Your task to perform on an android device: What's on my calendar tomorrow? Image 0: 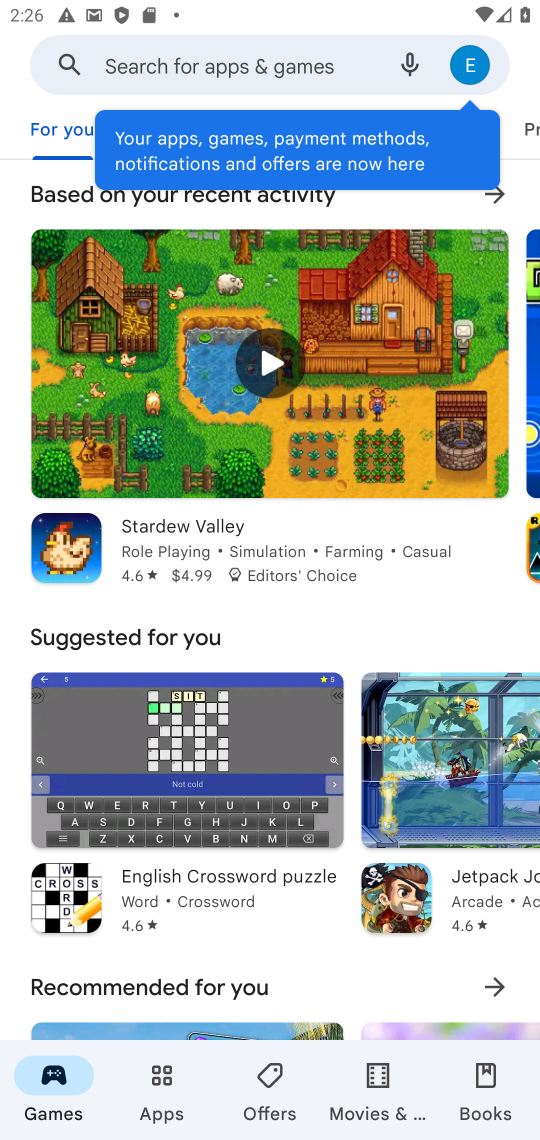
Step 0: press home button
Your task to perform on an android device: What's on my calendar tomorrow? Image 1: 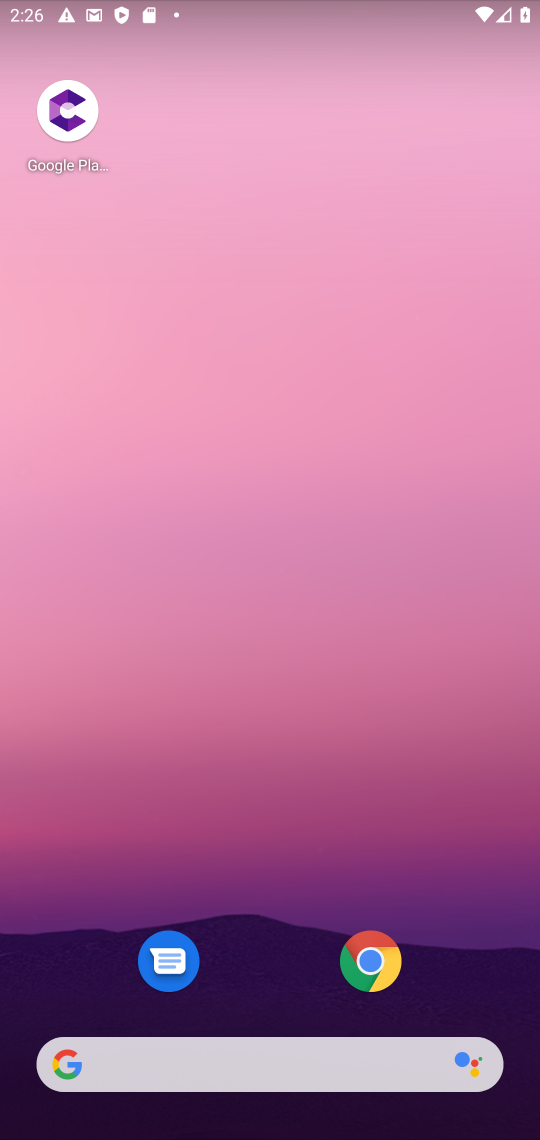
Step 1: drag from (260, 567) to (243, 131)
Your task to perform on an android device: What's on my calendar tomorrow? Image 2: 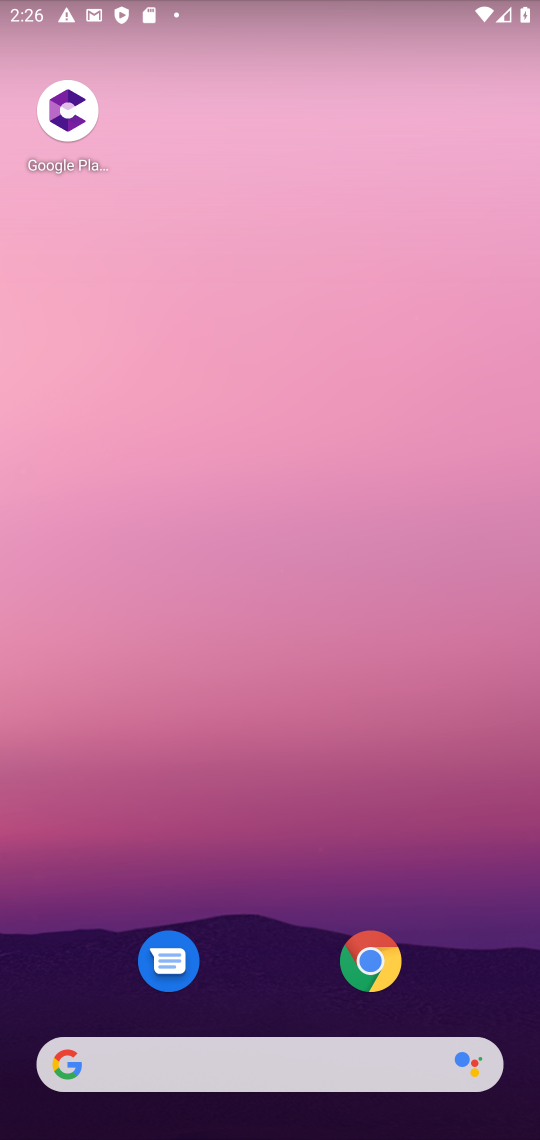
Step 2: drag from (267, 889) to (247, 206)
Your task to perform on an android device: What's on my calendar tomorrow? Image 3: 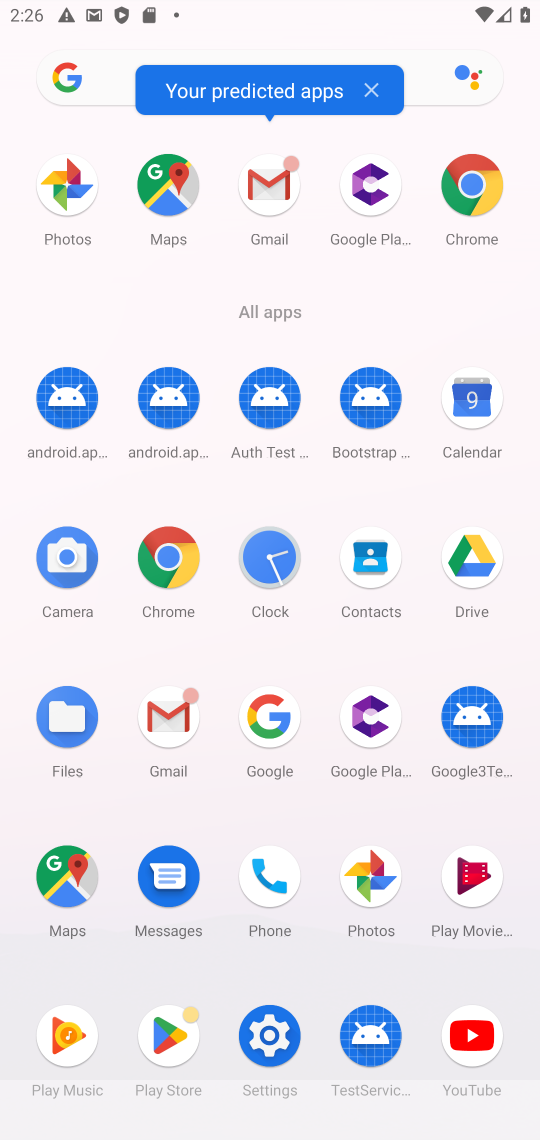
Step 3: click (476, 411)
Your task to perform on an android device: What's on my calendar tomorrow? Image 4: 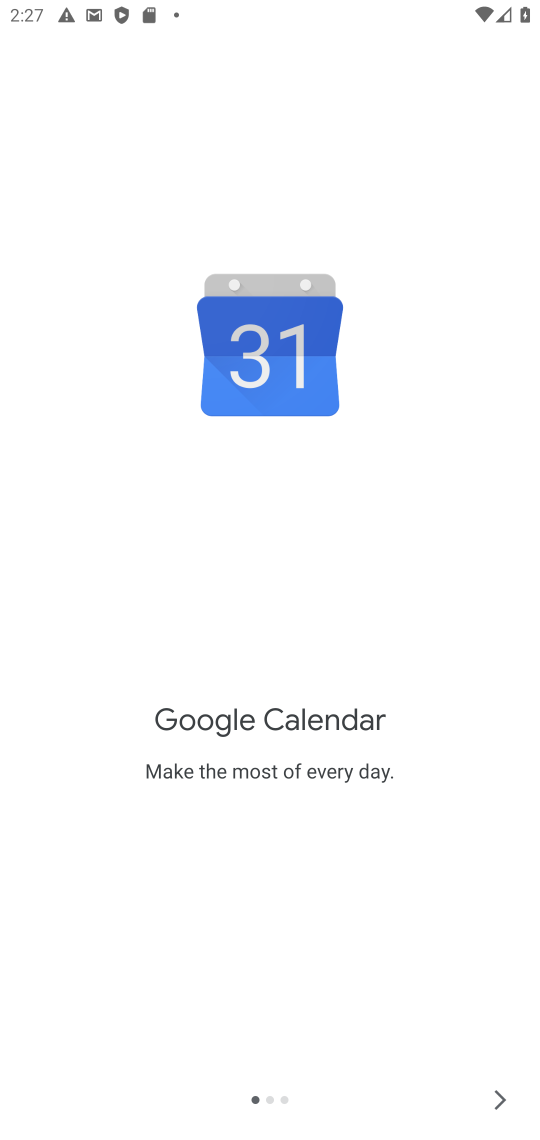
Step 4: click (506, 1108)
Your task to perform on an android device: What's on my calendar tomorrow? Image 5: 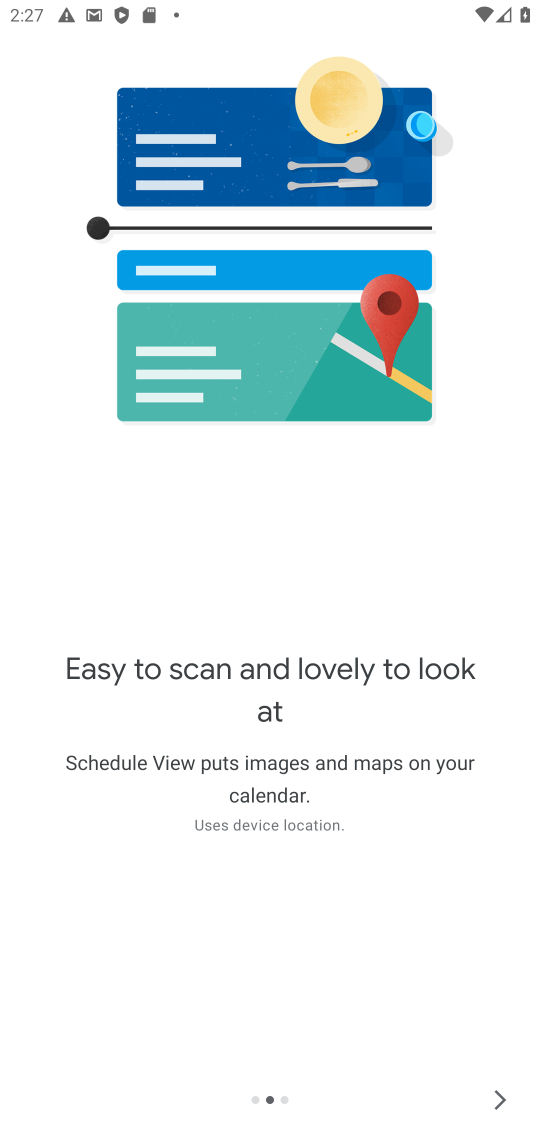
Step 5: click (506, 1108)
Your task to perform on an android device: What's on my calendar tomorrow? Image 6: 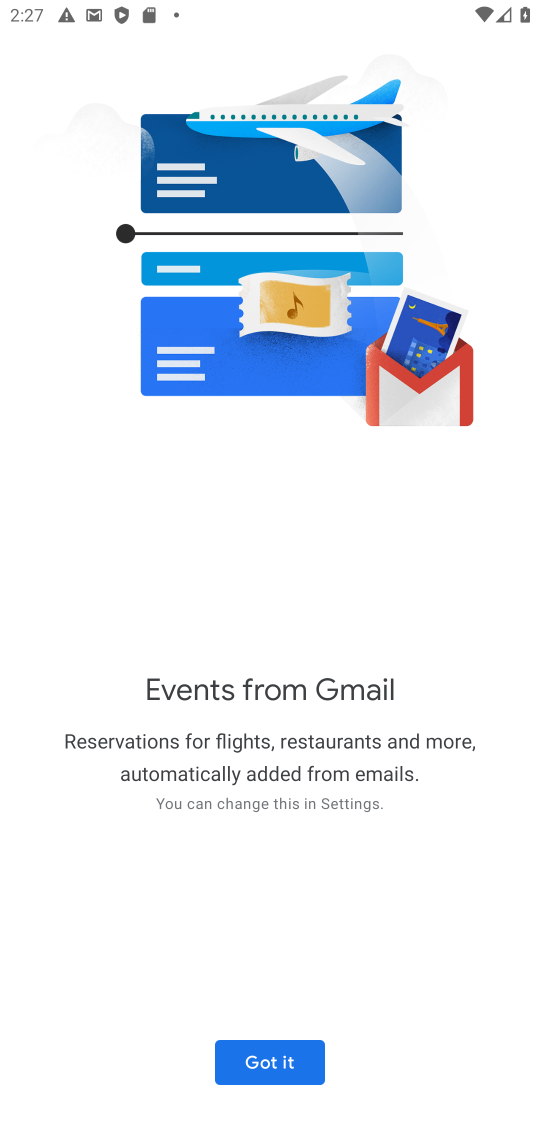
Step 6: click (273, 1058)
Your task to perform on an android device: What's on my calendar tomorrow? Image 7: 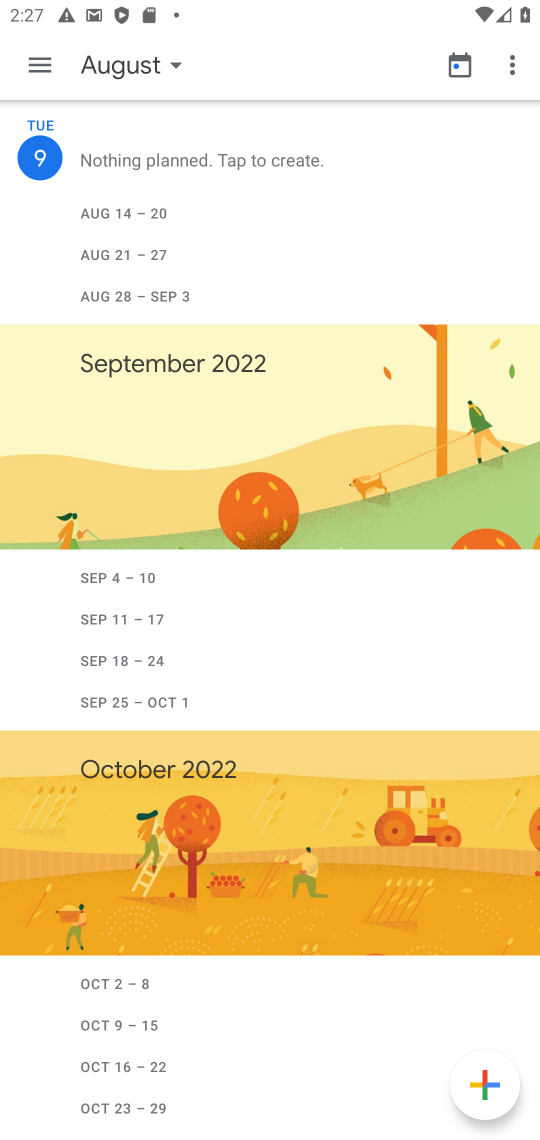
Step 7: click (128, 69)
Your task to perform on an android device: What's on my calendar tomorrow? Image 8: 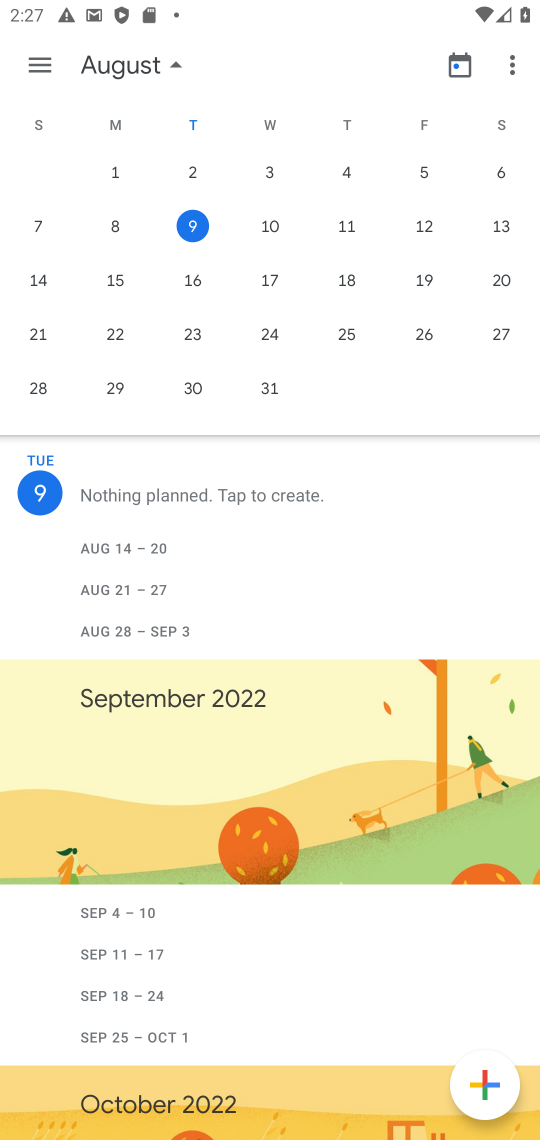
Step 8: click (274, 227)
Your task to perform on an android device: What's on my calendar tomorrow? Image 9: 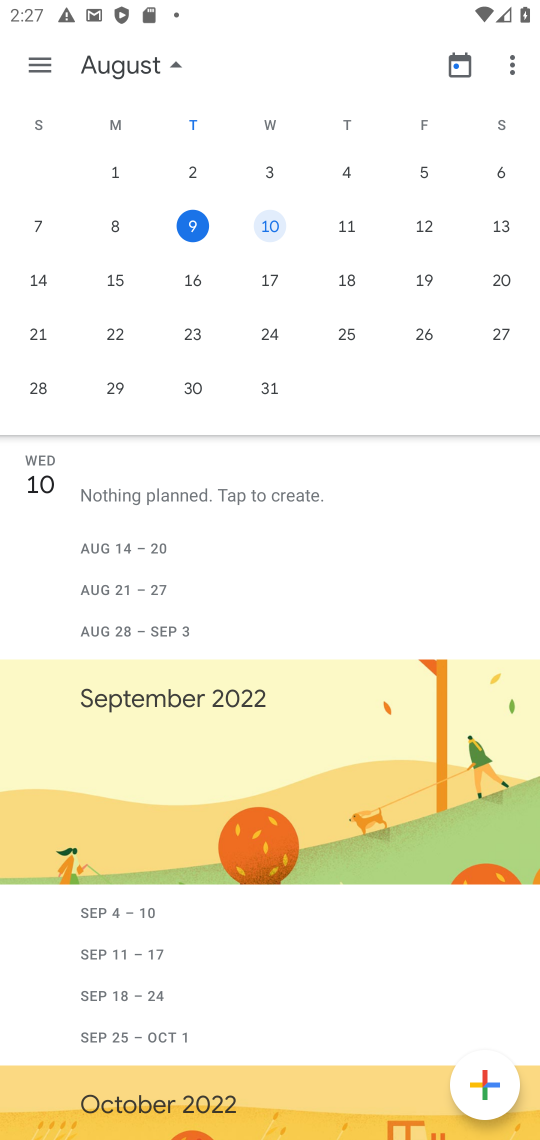
Step 9: task complete